Your task to perform on an android device: all mails in gmail Image 0: 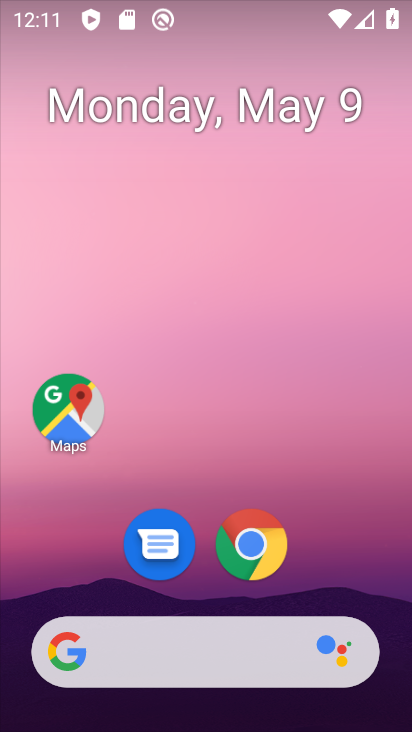
Step 0: drag from (339, 534) to (388, 0)
Your task to perform on an android device: all mails in gmail Image 1: 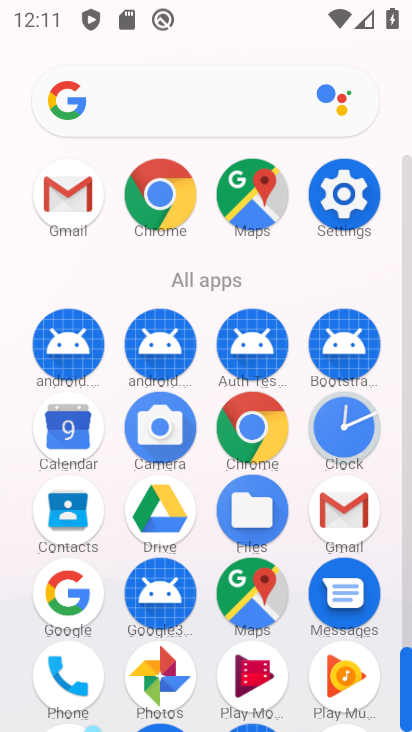
Step 1: click (57, 198)
Your task to perform on an android device: all mails in gmail Image 2: 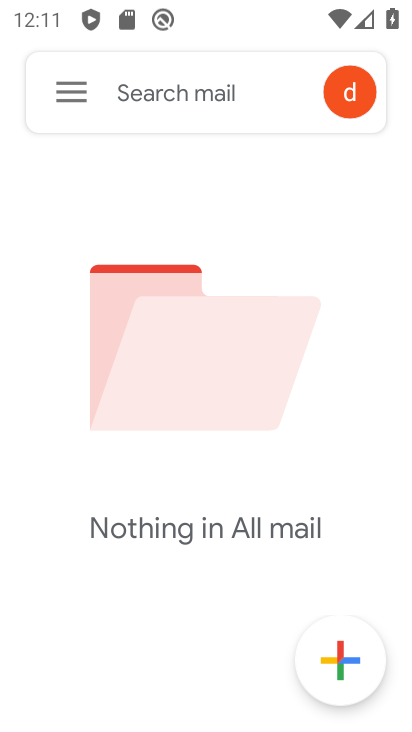
Step 2: task complete